Your task to perform on an android device: remove spam from my inbox in the gmail app Image 0: 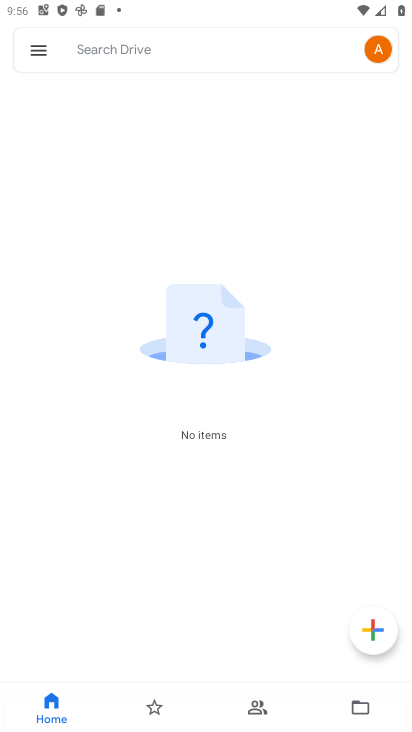
Step 0: press home button
Your task to perform on an android device: remove spam from my inbox in the gmail app Image 1: 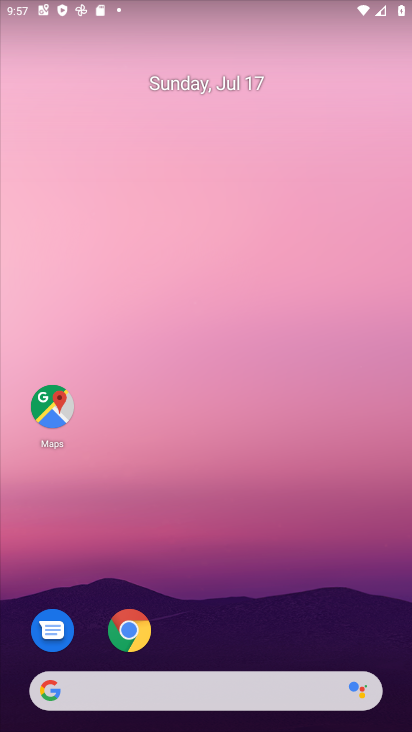
Step 1: drag from (305, 630) to (313, 195)
Your task to perform on an android device: remove spam from my inbox in the gmail app Image 2: 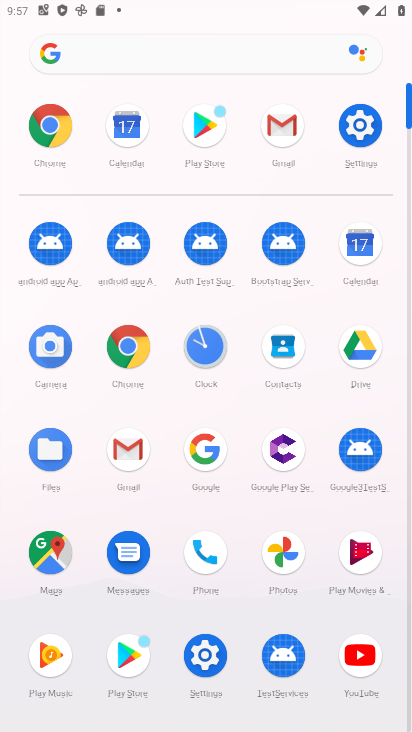
Step 2: click (279, 150)
Your task to perform on an android device: remove spam from my inbox in the gmail app Image 3: 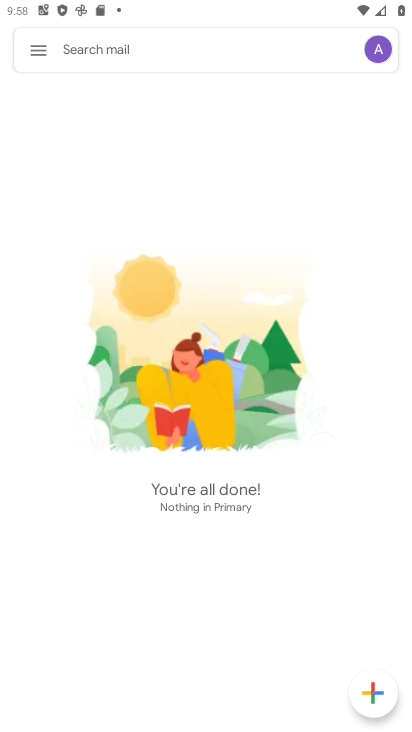
Step 3: task complete